Your task to perform on an android device: Open location settings Image 0: 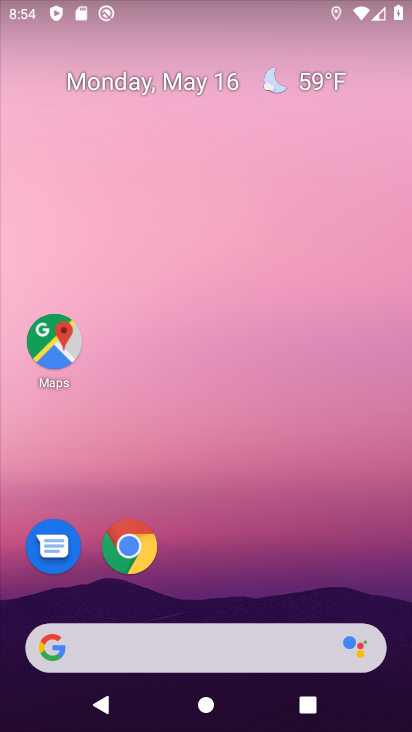
Step 0: drag from (349, 444) to (359, 0)
Your task to perform on an android device: Open location settings Image 1: 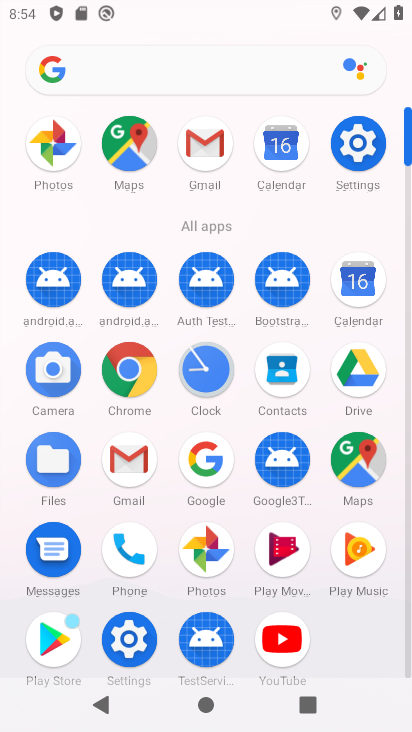
Step 1: click (363, 138)
Your task to perform on an android device: Open location settings Image 2: 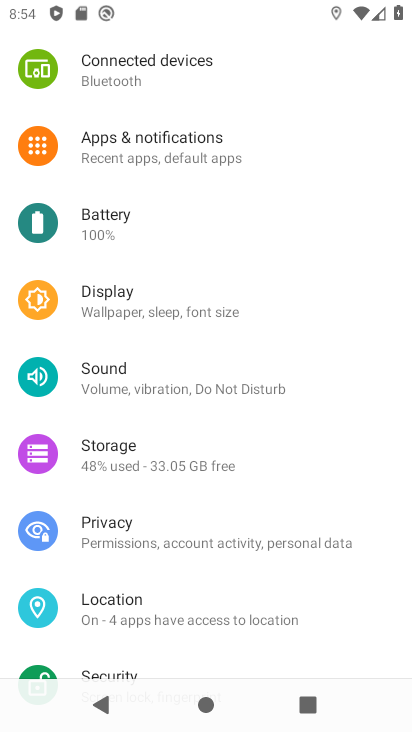
Step 2: click (201, 610)
Your task to perform on an android device: Open location settings Image 3: 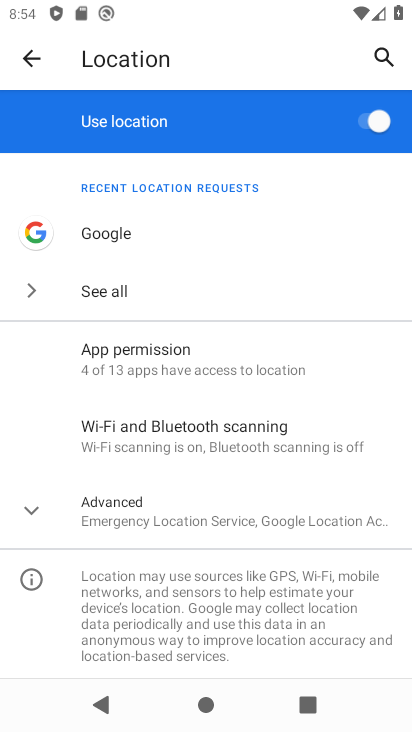
Step 3: task complete